Your task to perform on an android device: open app "Fetch Rewards" (install if not already installed) Image 0: 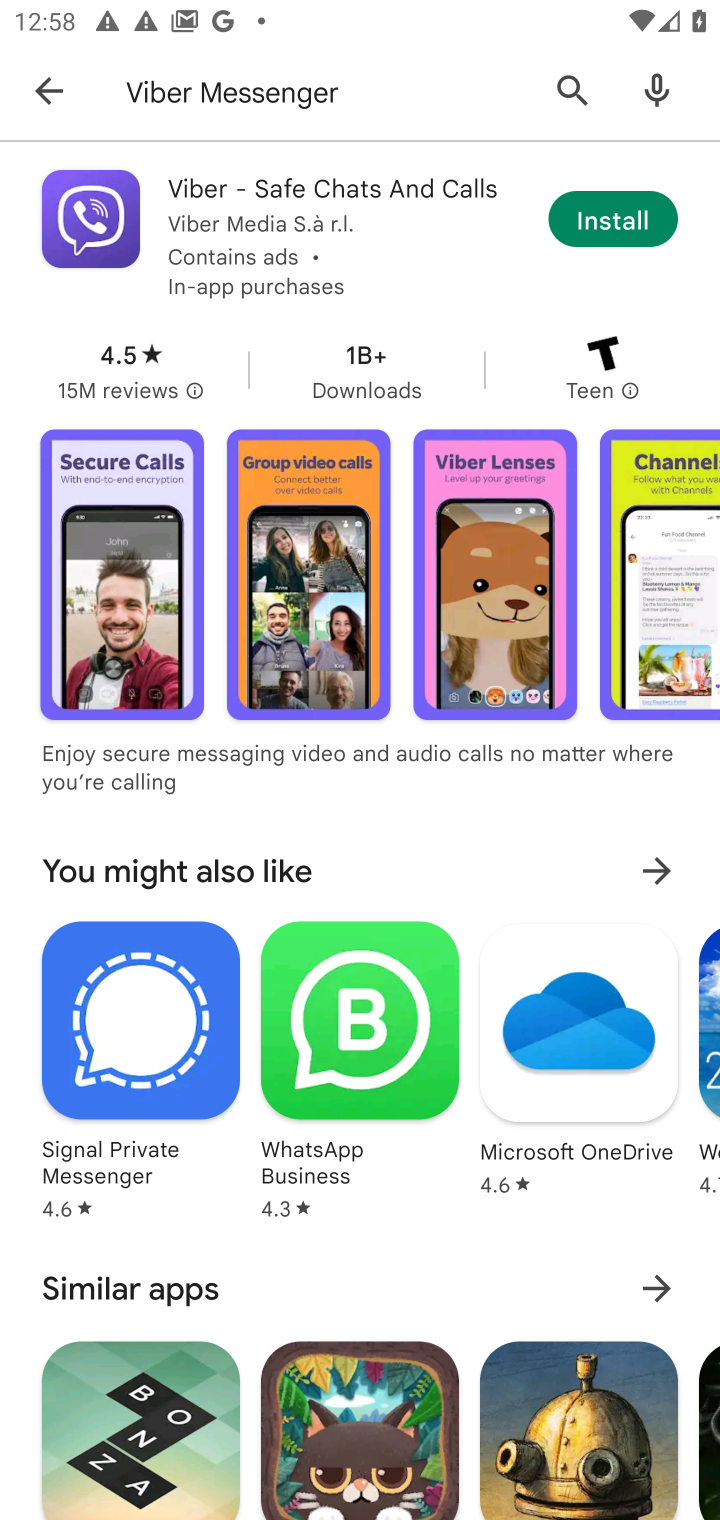
Step 0: click (284, 71)
Your task to perform on an android device: open app "Fetch Rewards" (install if not already installed) Image 1: 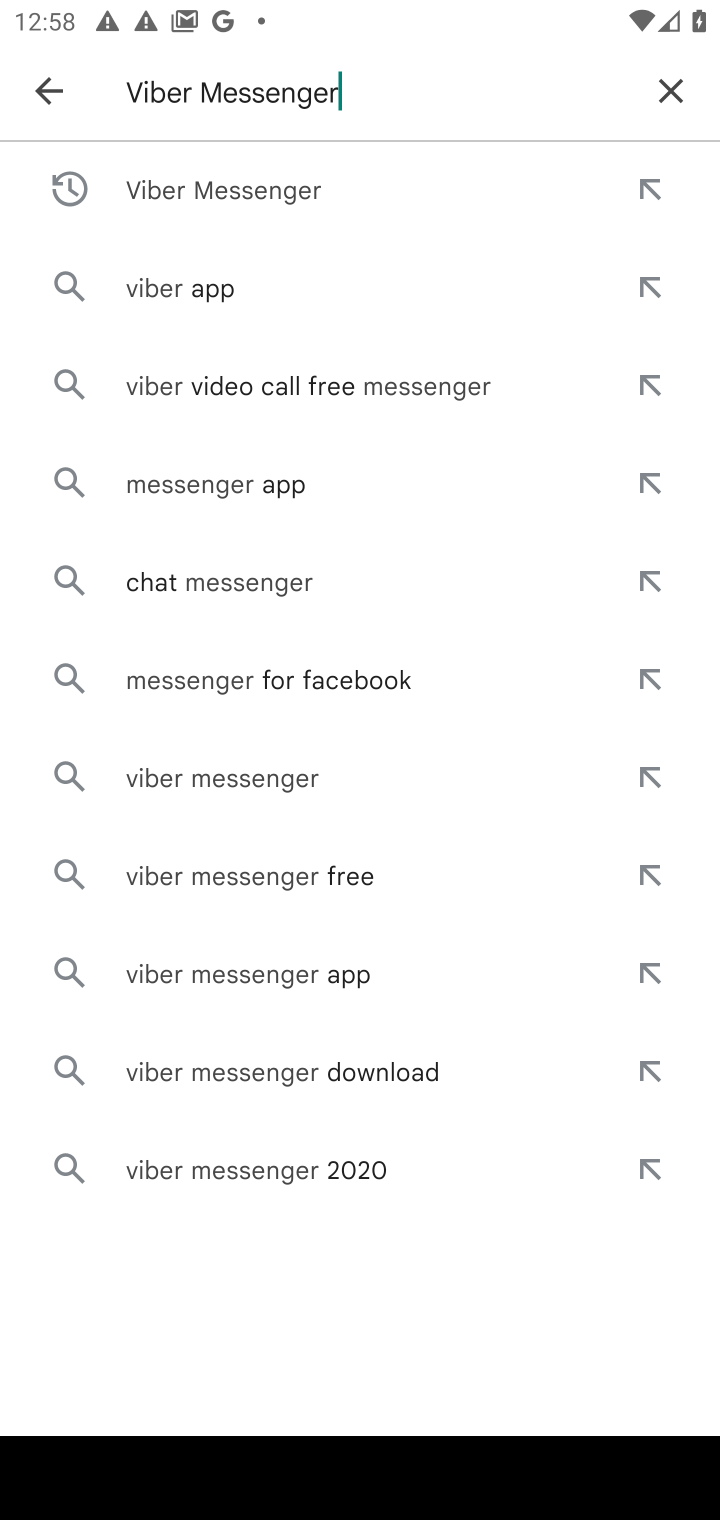
Step 1: click (703, 83)
Your task to perform on an android device: open app "Fetch Rewards" (install if not already installed) Image 2: 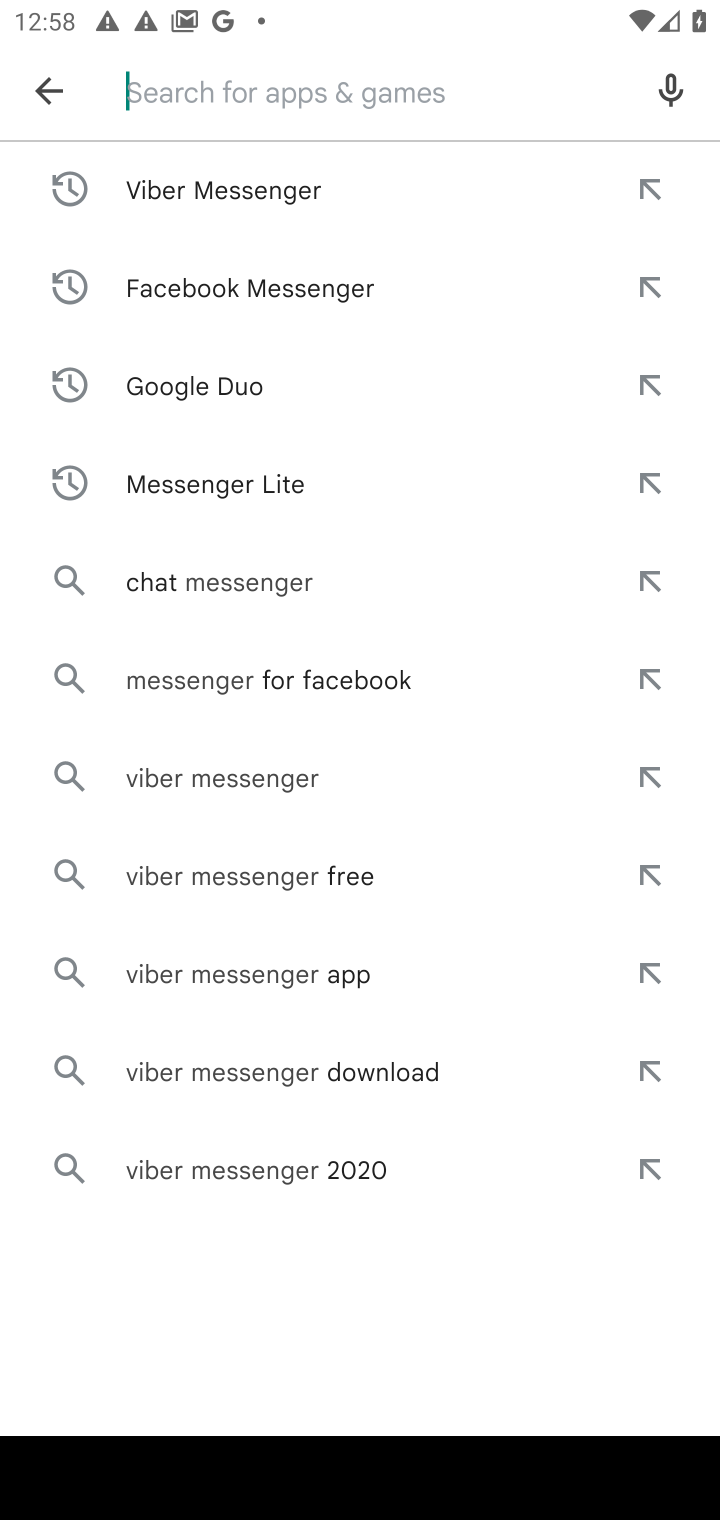
Step 2: click (692, 83)
Your task to perform on an android device: open app "Fetch Rewards" (install if not already installed) Image 3: 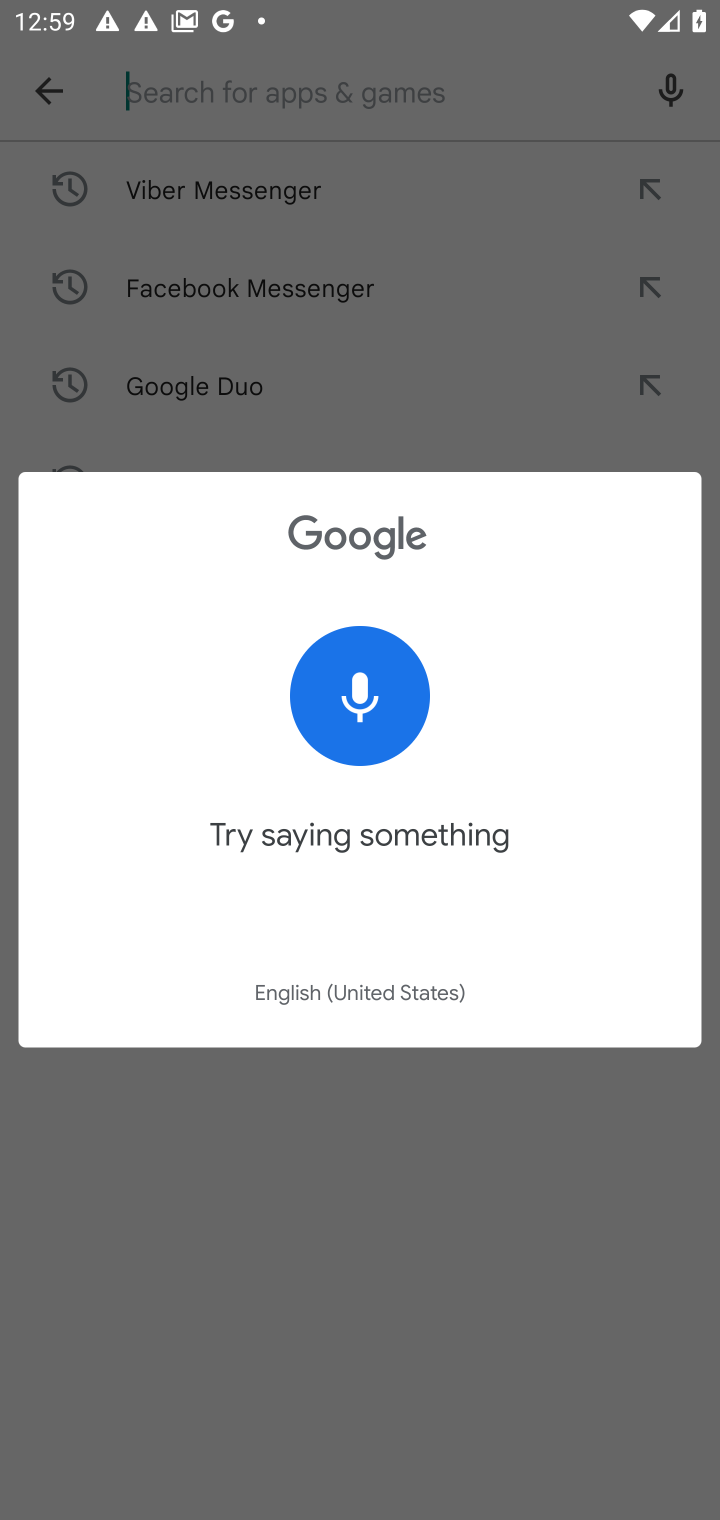
Step 3: click (196, 74)
Your task to perform on an android device: open app "Fetch Rewards" (install if not already installed) Image 4: 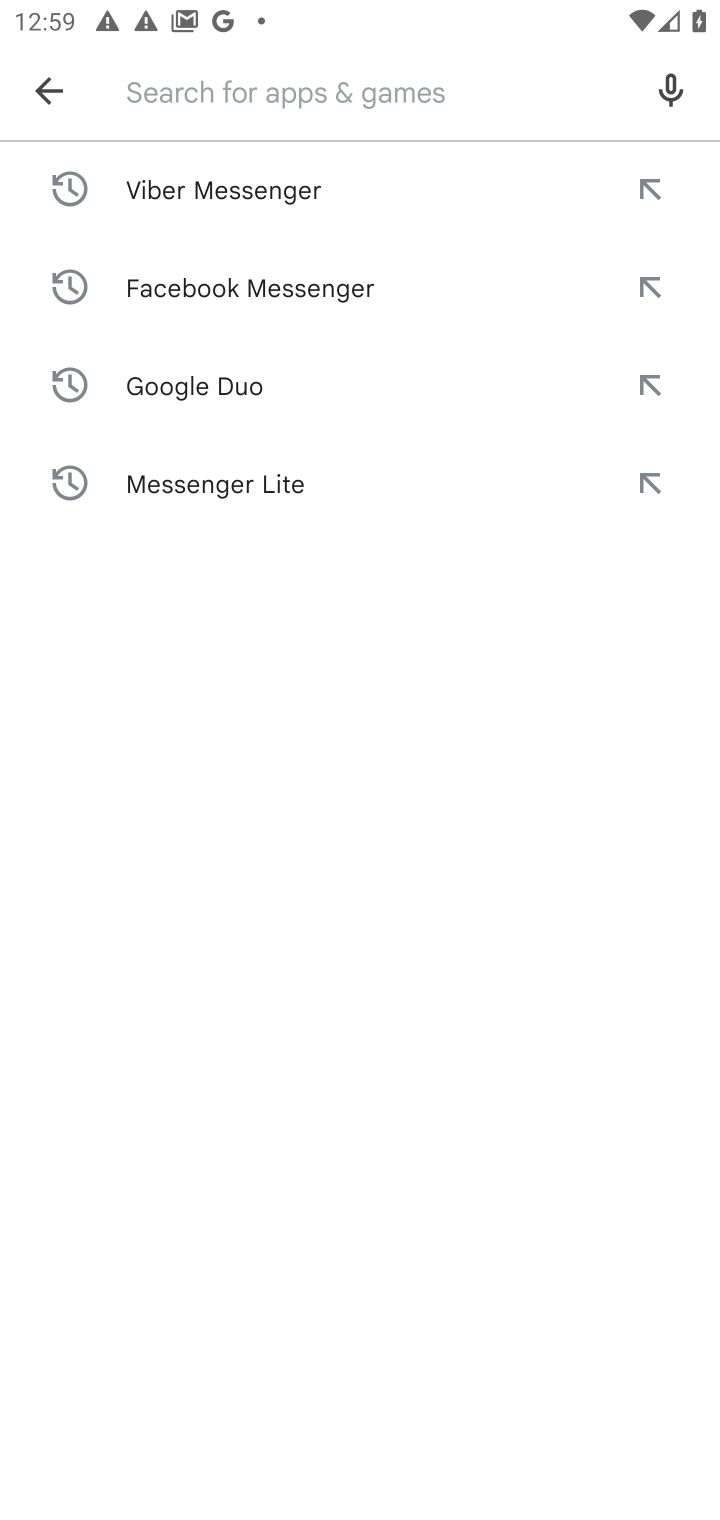
Step 4: type "Fetch Rewards"
Your task to perform on an android device: open app "Fetch Rewards" (install if not already installed) Image 5: 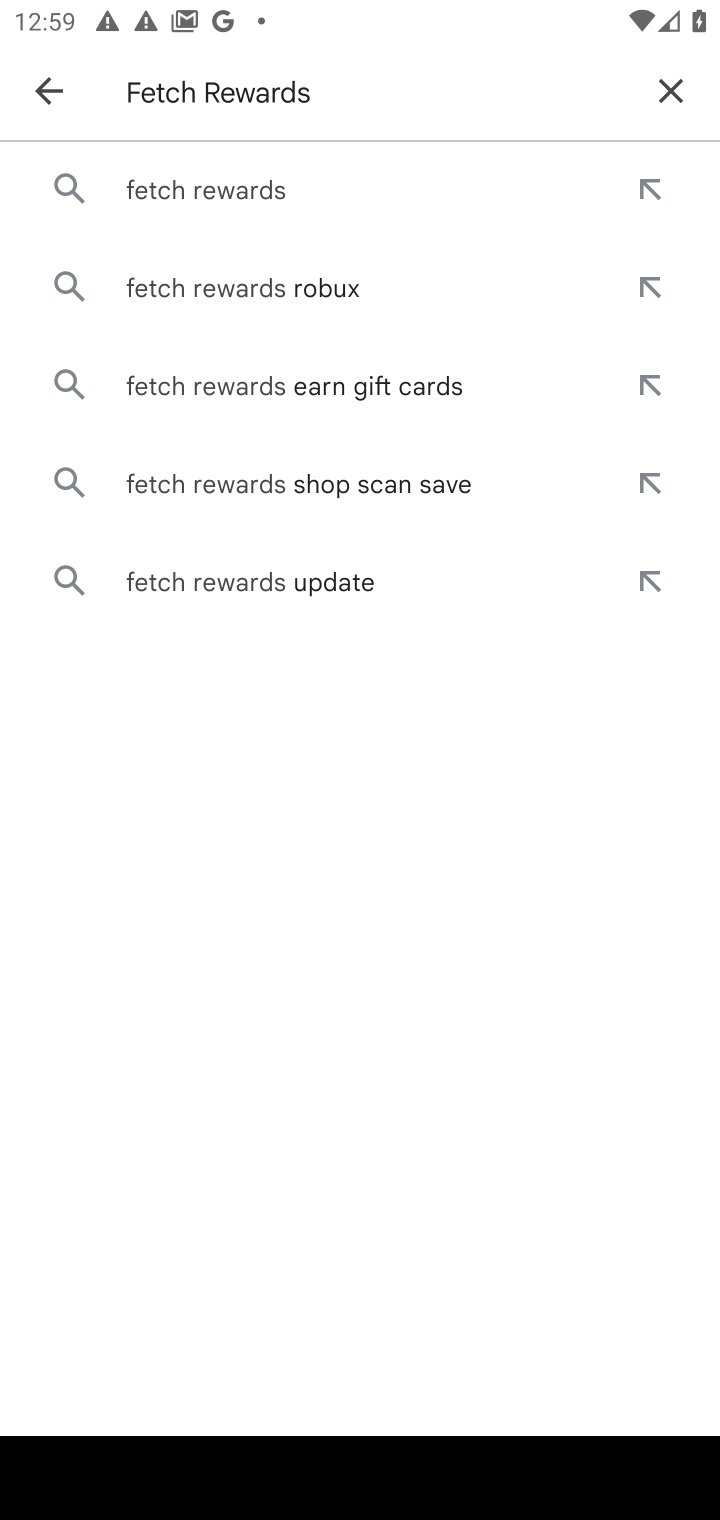
Step 5: press enter
Your task to perform on an android device: open app "Fetch Rewards" (install if not already installed) Image 6: 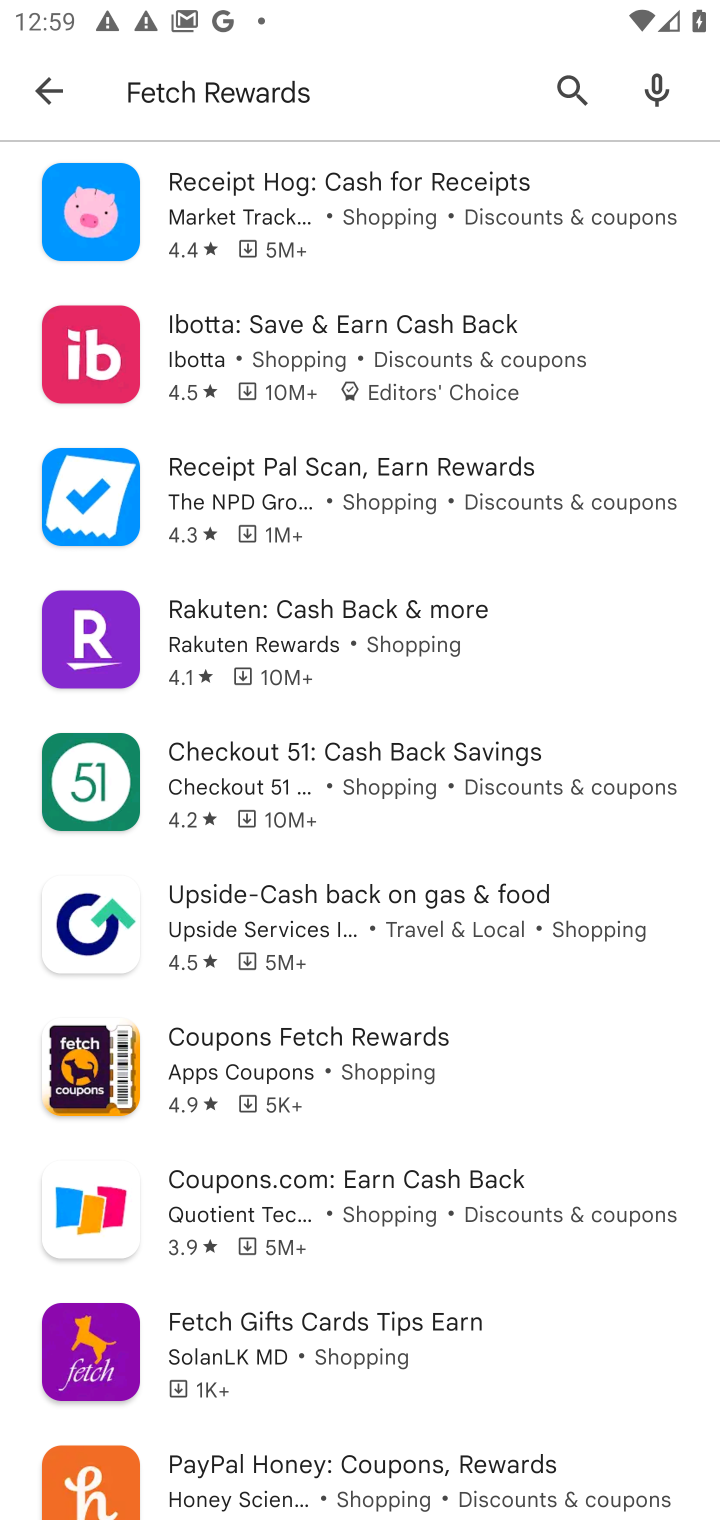
Step 6: task complete